Your task to perform on an android device: Do I have any events tomorrow? Image 0: 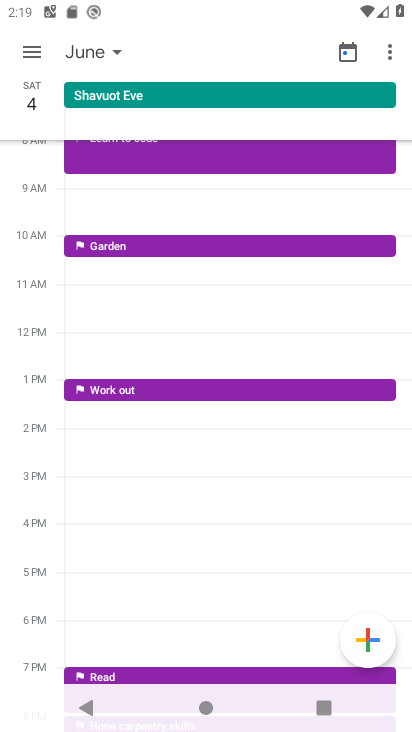
Step 0: press home button
Your task to perform on an android device: Do I have any events tomorrow? Image 1: 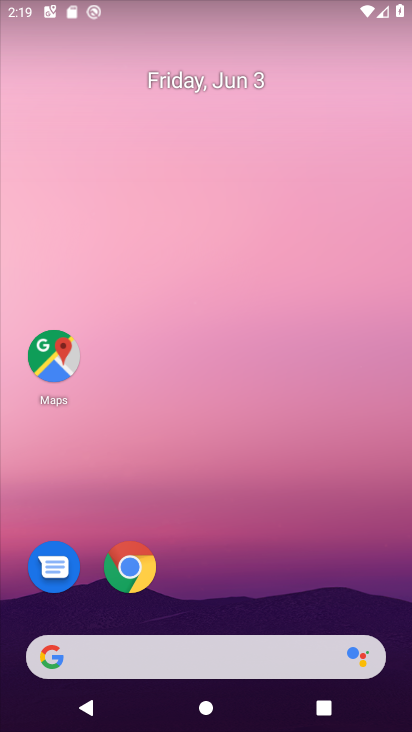
Step 1: drag from (204, 581) to (232, 187)
Your task to perform on an android device: Do I have any events tomorrow? Image 2: 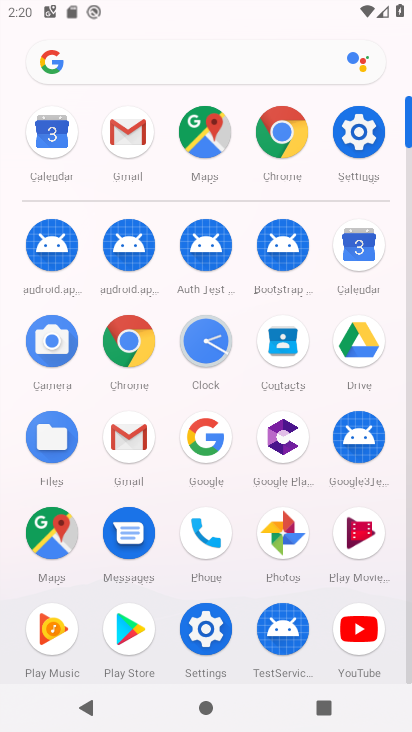
Step 2: click (356, 247)
Your task to perform on an android device: Do I have any events tomorrow? Image 3: 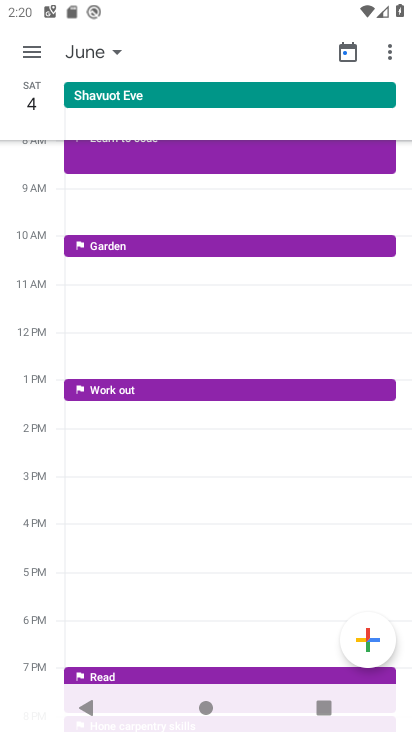
Step 3: click (32, 48)
Your task to perform on an android device: Do I have any events tomorrow? Image 4: 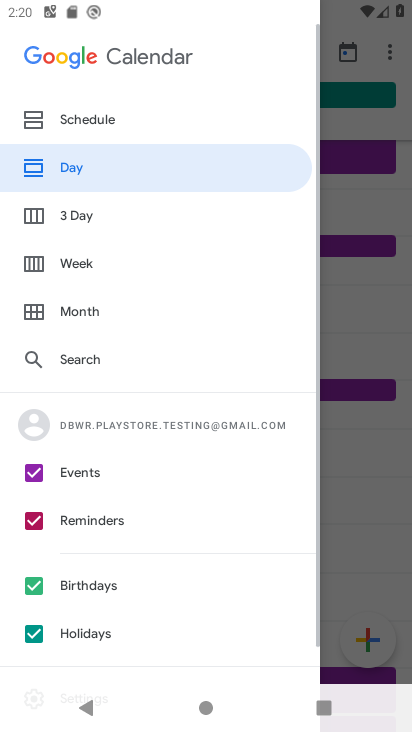
Step 4: click (97, 168)
Your task to perform on an android device: Do I have any events tomorrow? Image 5: 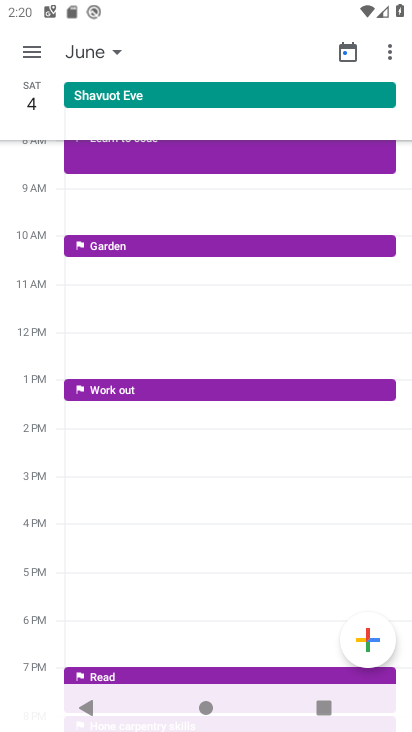
Step 5: task complete